Your task to perform on an android device: change notification settings in the gmail app Image 0: 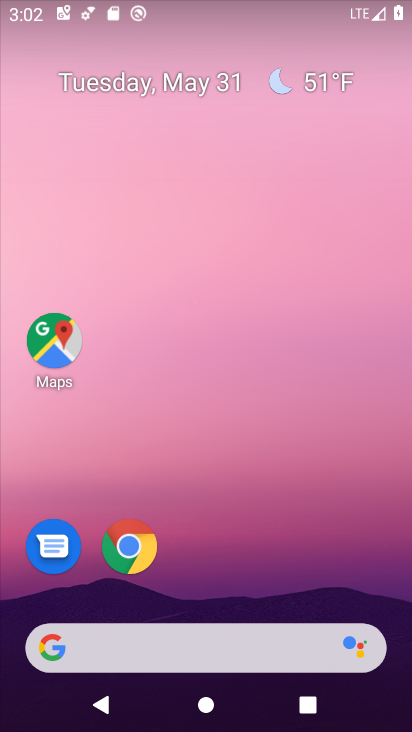
Step 0: drag from (278, 556) to (200, 135)
Your task to perform on an android device: change notification settings in the gmail app Image 1: 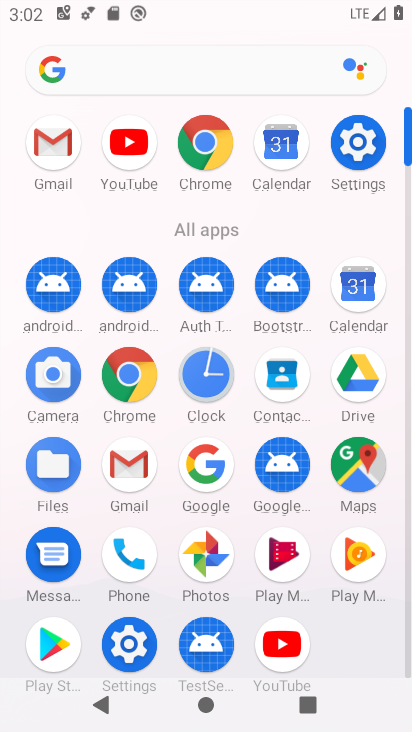
Step 1: click (52, 133)
Your task to perform on an android device: change notification settings in the gmail app Image 2: 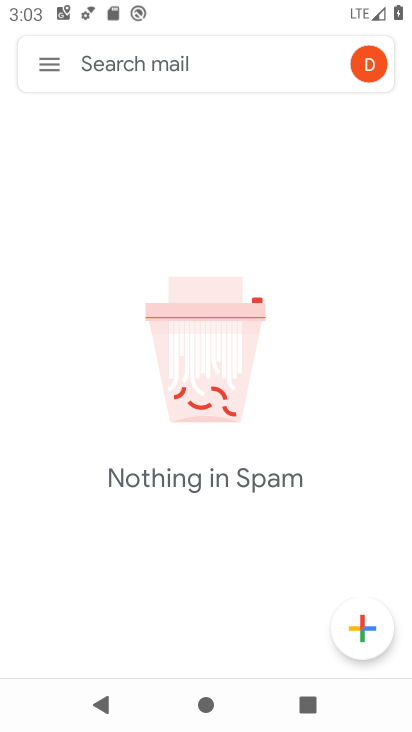
Step 2: click (48, 58)
Your task to perform on an android device: change notification settings in the gmail app Image 3: 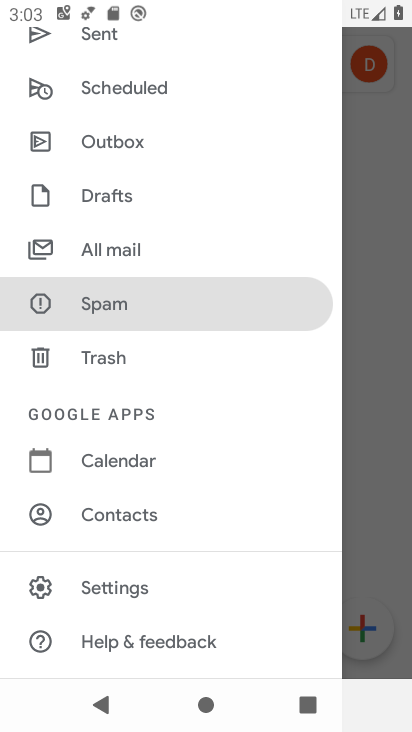
Step 3: click (132, 591)
Your task to perform on an android device: change notification settings in the gmail app Image 4: 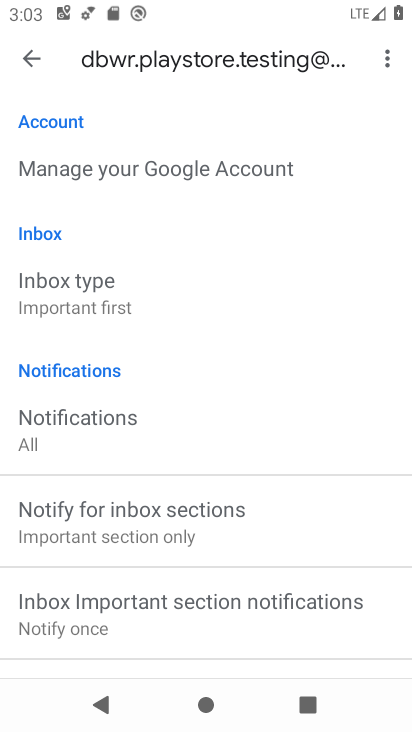
Step 4: click (124, 435)
Your task to perform on an android device: change notification settings in the gmail app Image 5: 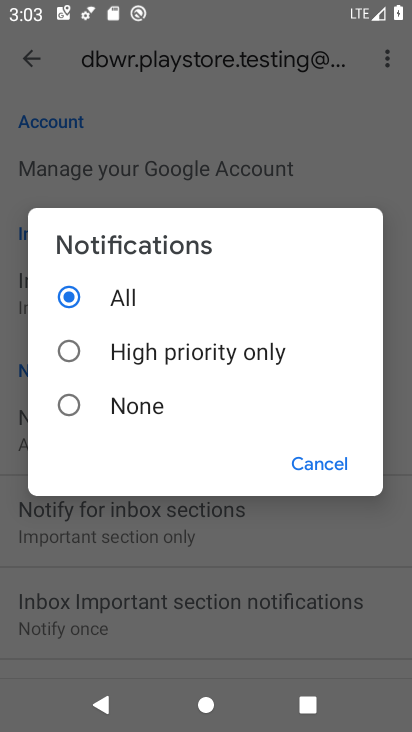
Step 5: click (147, 404)
Your task to perform on an android device: change notification settings in the gmail app Image 6: 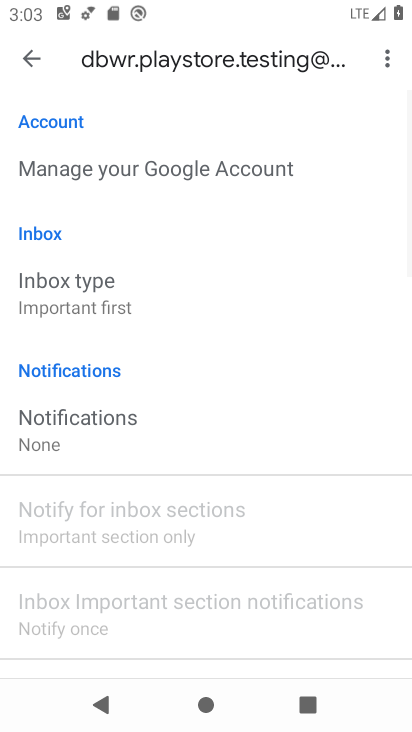
Step 6: task complete